Your task to perform on an android device: toggle priority inbox in the gmail app Image 0: 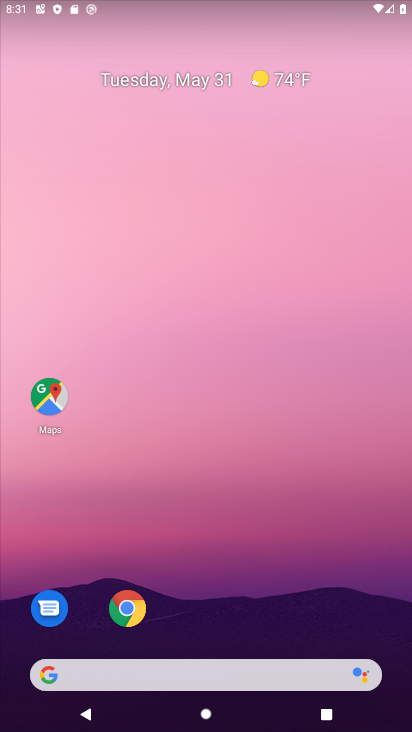
Step 0: drag from (195, 653) to (304, 4)
Your task to perform on an android device: toggle priority inbox in the gmail app Image 1: 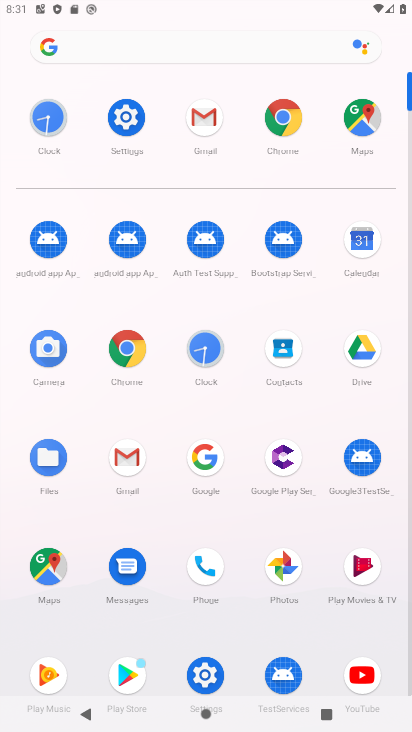
Step 1: click (133, 462)
Your task to perform on an android device: toggle priority inbox in the gmail app Image 2: 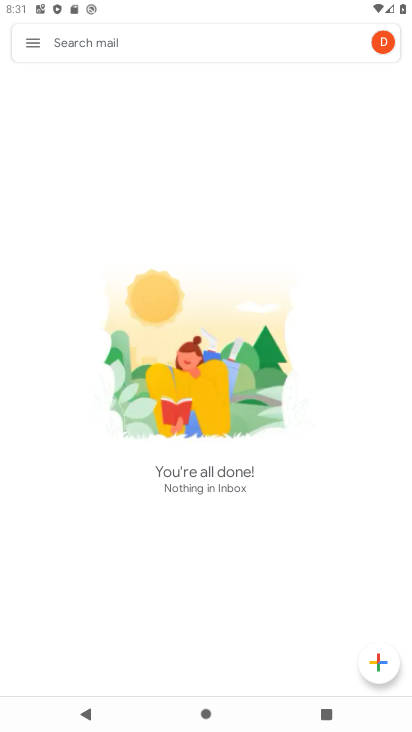
Step 2: click (34, 42)
Your task to perform on an android device: toggle priority inbox in the gmail app Image 3: 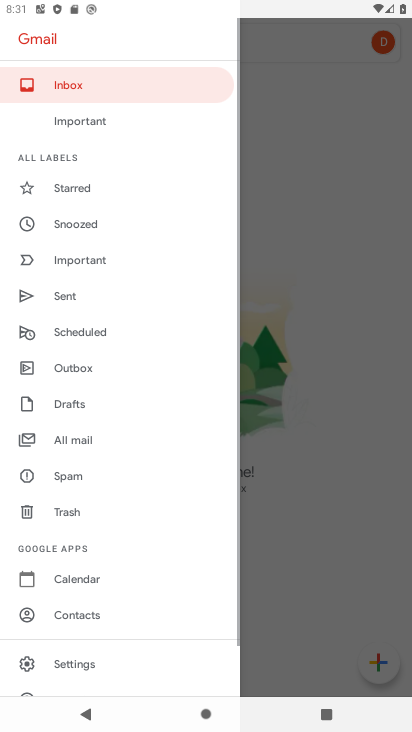
Step 3: click (86, 664)
Your task to perform on an android device: toggle priority inbox in the gmail app Image 4: 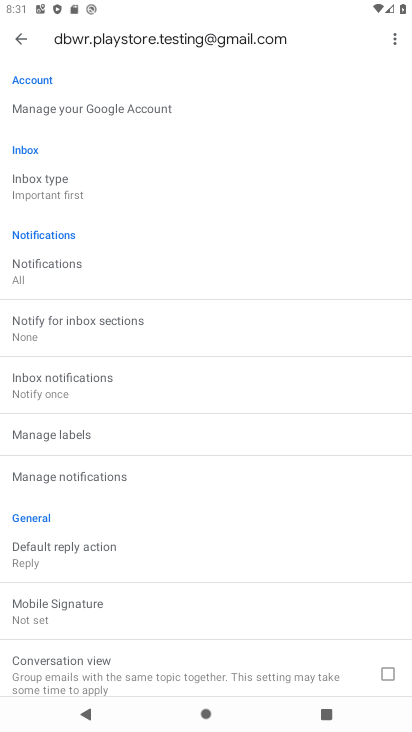
Step 4: click (59, 189)
Your task to perform on an android device: toggle priority inbox in the gmail app Image 5: 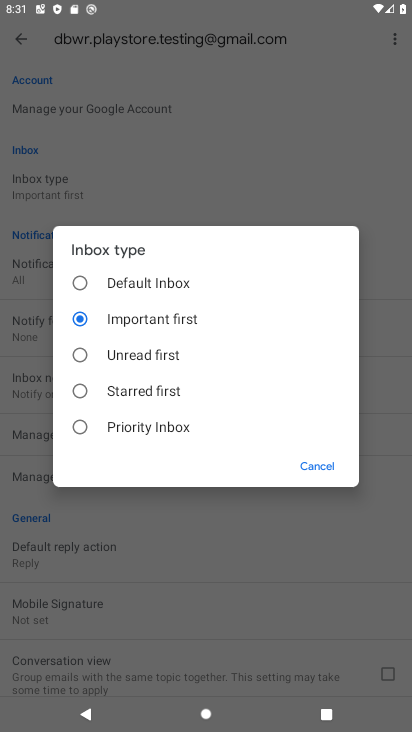
Step 5: click (113, 433)
Your task to perform on an android device: toggle priority inbox in the gmail app Image 6: 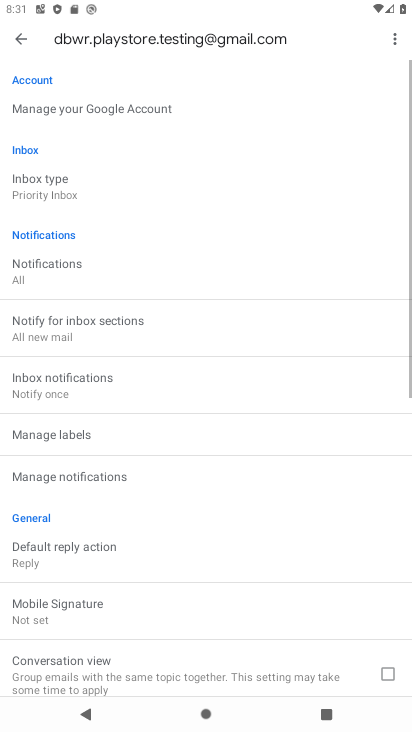
Step 6: task complete